Your task to perform on an android device: clear history in the chrome app Image 0: 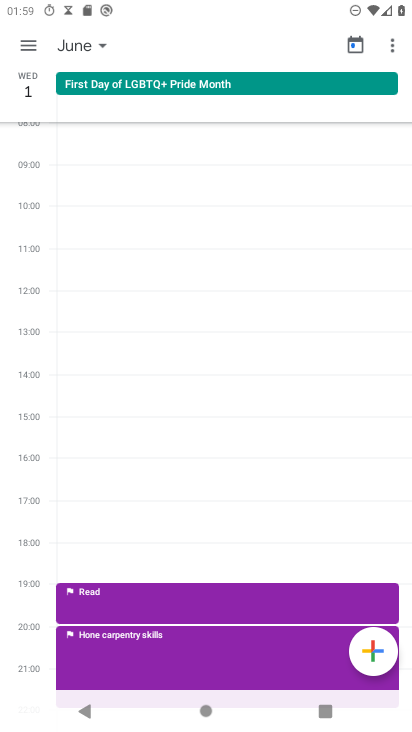
Step 0: press home button
Your task to perform on an android device: clear history in the chrome app Image 1: 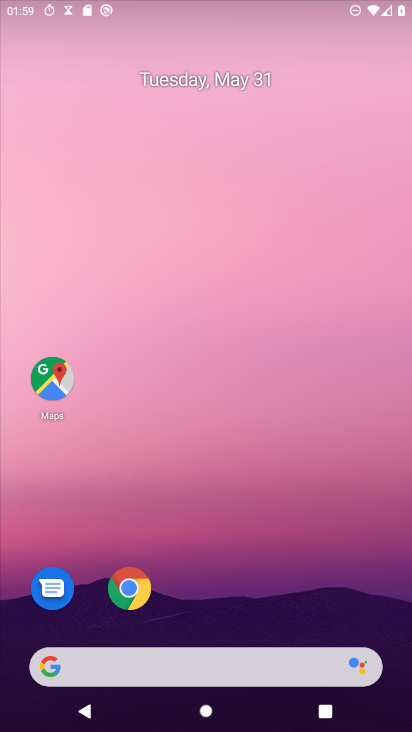
Step 1: drag from (303, 592) to (347, 3)
Your task to perform on an android device: clear history in the chrome app Image 2: 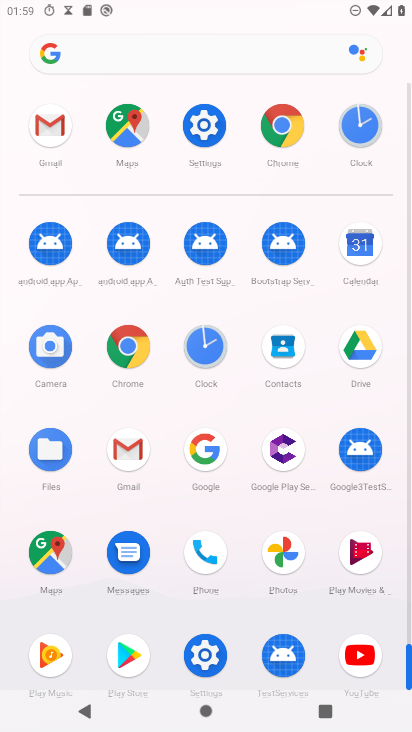
Step 2: click (134, 352)
Your task to perform on an android device: clear history in the chrome app Image 3: 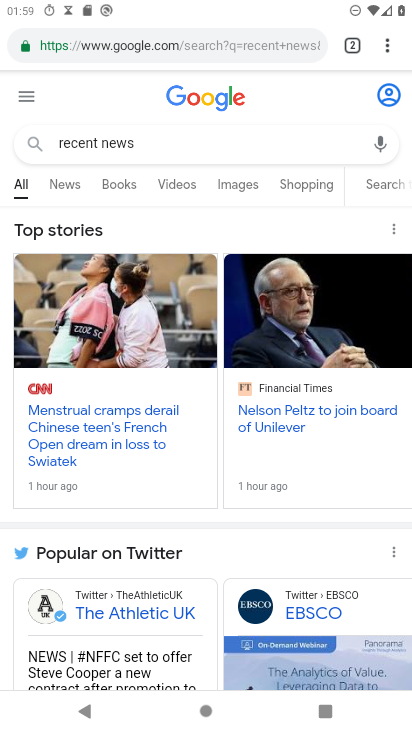
Step 3: click (387, 41)
Your task to perform on an android device: clear history in the chrome app Image 4: 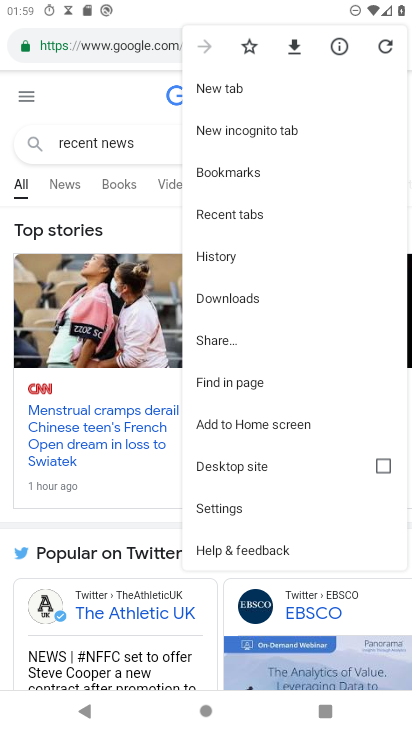
Step 4: click (246, 502)
Your task to perform on an android device: clear history in the chrome app Image 5: 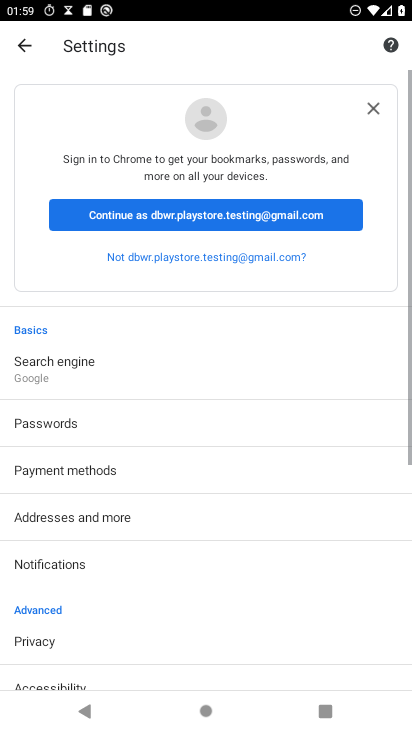
Step 5: drag from (292, 608) to (318, 346)
Your task to perform on an android device: clear history in the chrome app Image 6: 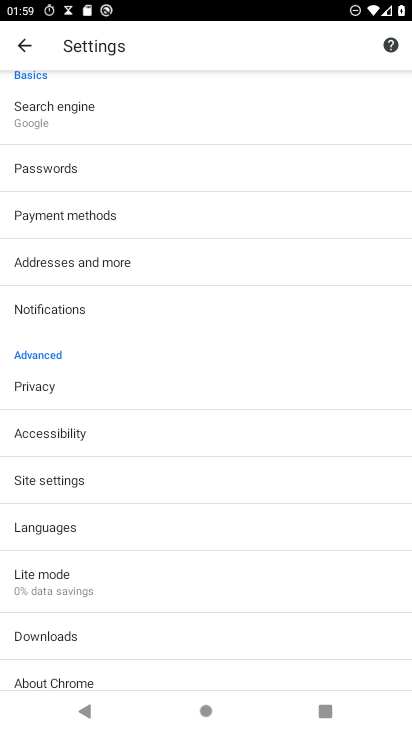
Step 6: press home button
Your task to perform on an android device: clear history in the chrome app Image 7: 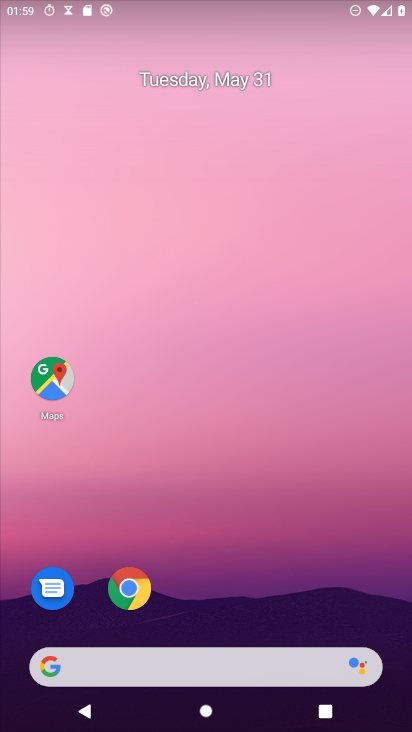
Step 7: drag from (296, 674) to (270, 1)
Your task to perform on an android device: clear history in the chrome app Image 8: 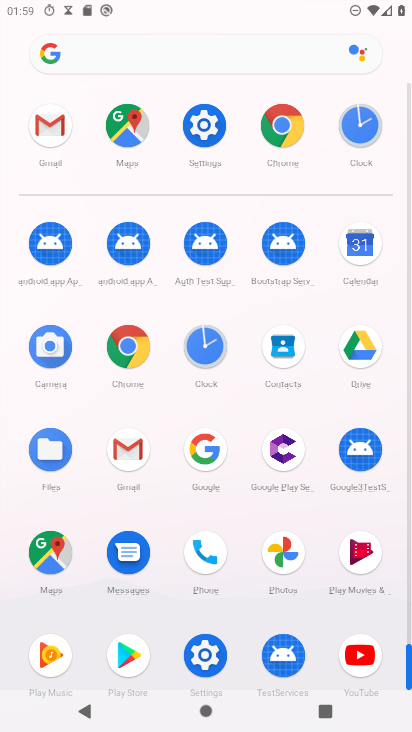
Step 8: click (132, 353)
Your task to perform on an android device: clear history in the chrome app Image 9: 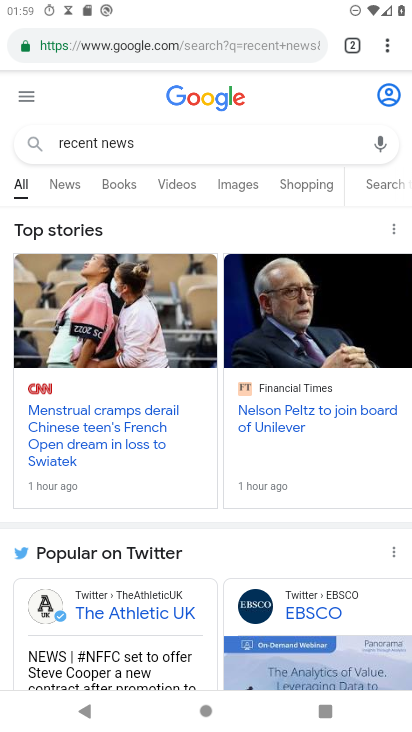
Step 9: click (385, 48)
Your task to perform on an android device: clear history in the chrome app Image 10: 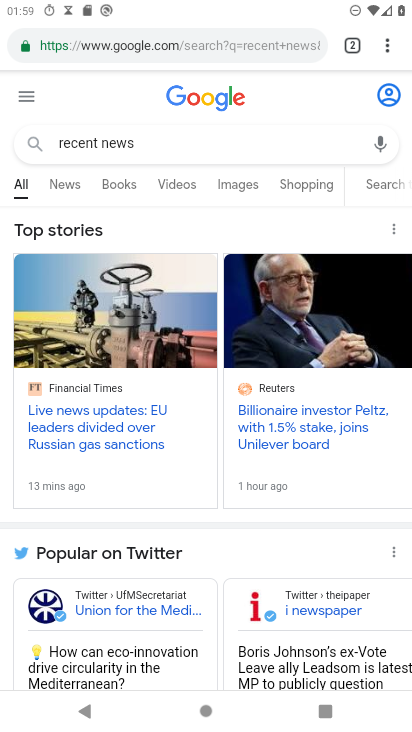
Step 10: drag from (389, 43) to (288, 261)
Your task to perform on an android device: clear history in the chrome app Image 11: 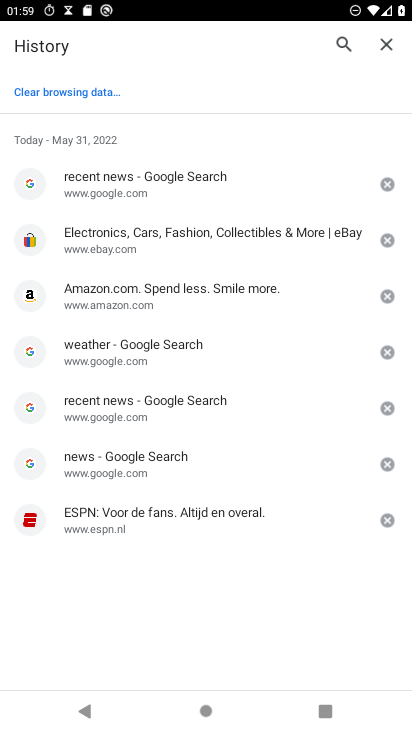
Step 11: click (80, 83)
Your task to perform on an android device: clear history in the chrome app Image 12: 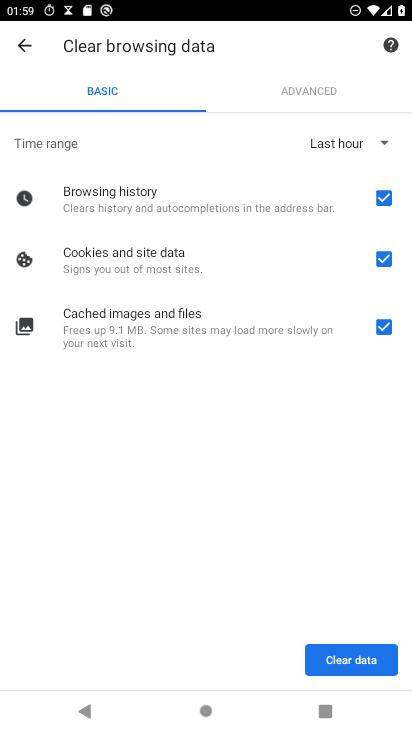
Step 12: click (332, 665)
Your task to perform on an android device: clear history in the chrome app Image 13: 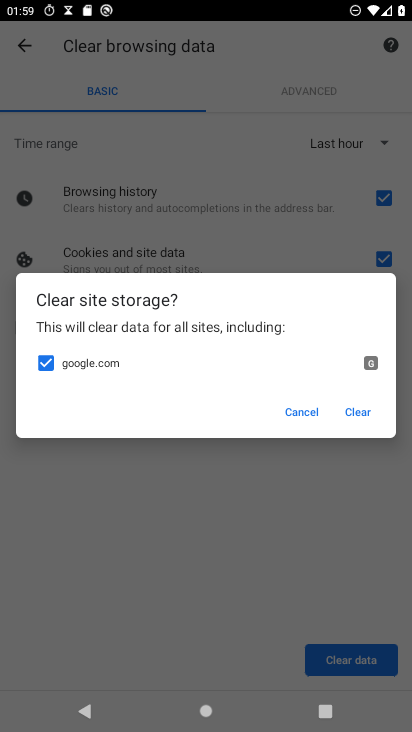
Step 13: click (353, 406)
Your task to perform on an android device: clear history in the chrome app Image 14: 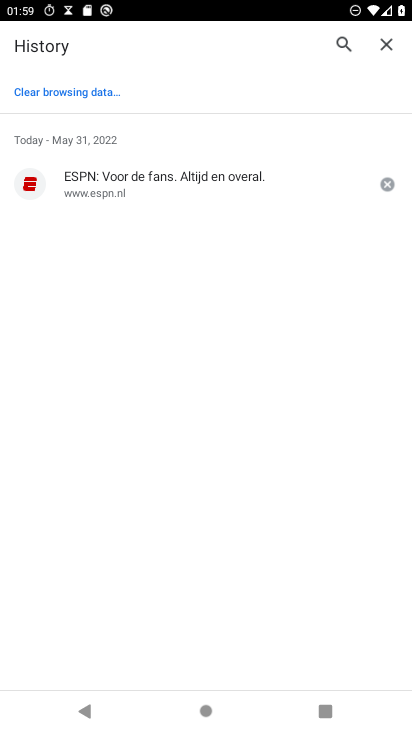
Step 14: click (386, 181)
Your task to perform on an android device: clear history in the chrome app Image 15: 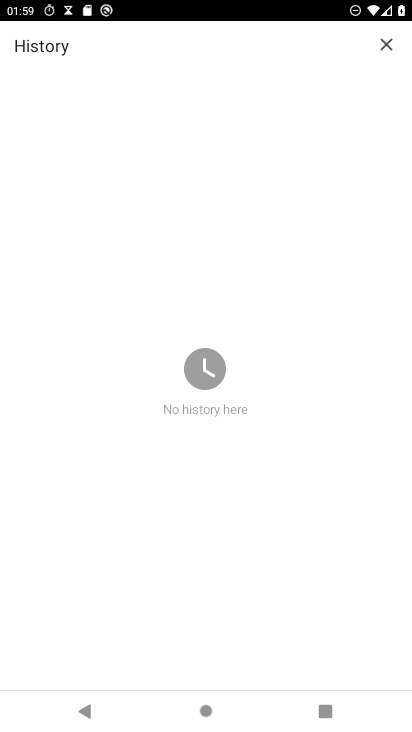
Step 15: task complete